Your task to perform on an android device: Go to Android settings Image 0: 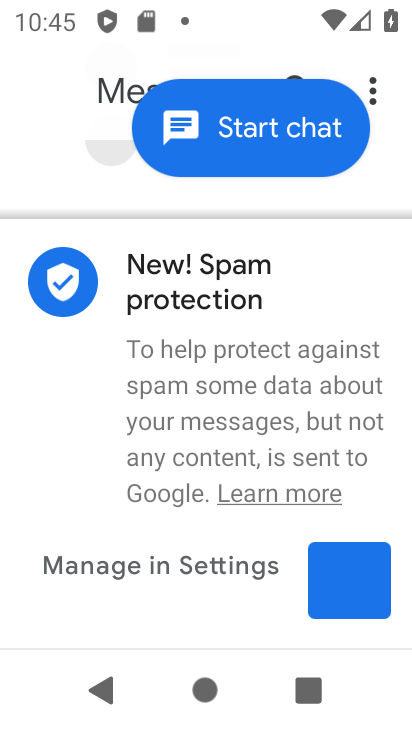
Step 0: press home button
Your task to perform on an android device: Go to Android settings Image 1: 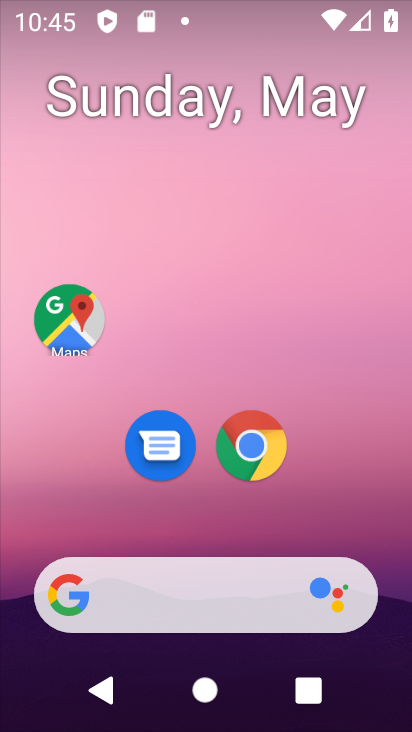
Step 1: drag from (221, 419) to (228, 106)
Your task to perform on an android device: Go to Android settings Image 2: 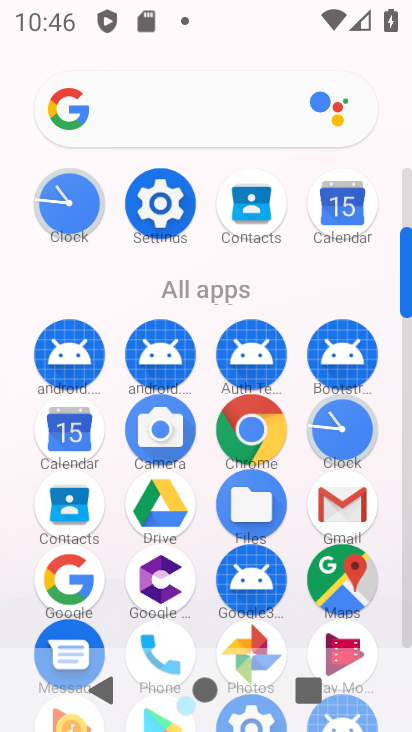
Step 2: click (156, 203)
Your task to perform on an android device: Go to Android settings Image 3: 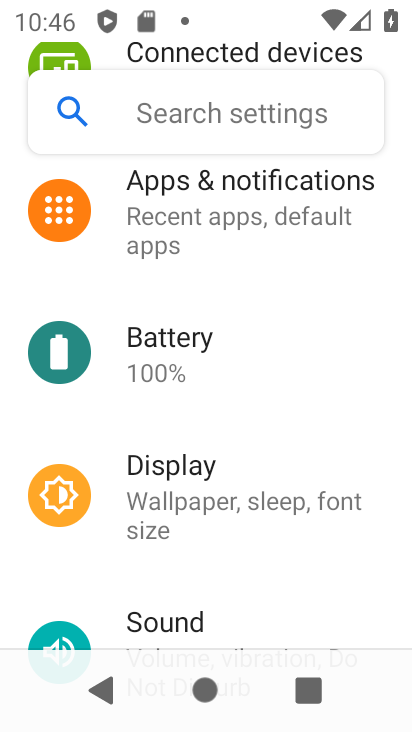
Step 3: drag from (229, 432) to (297, 103)
Your task to perform on an android device: Go to Android settings Image 4: 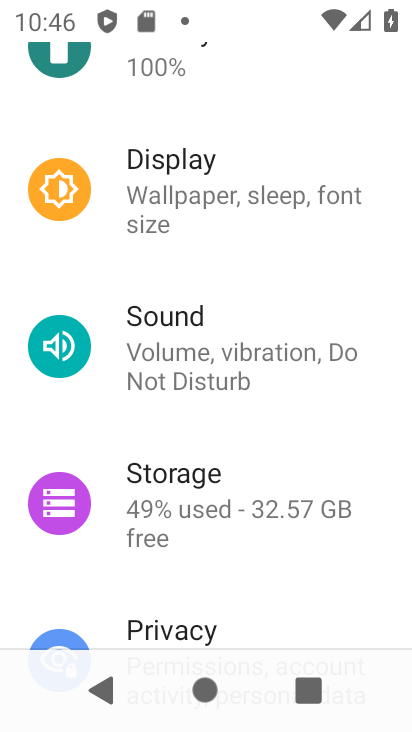
Step 4: drag from (184, 565) to (308, 146)
Your task to perform on an android device: Go to Android settings Image 5: 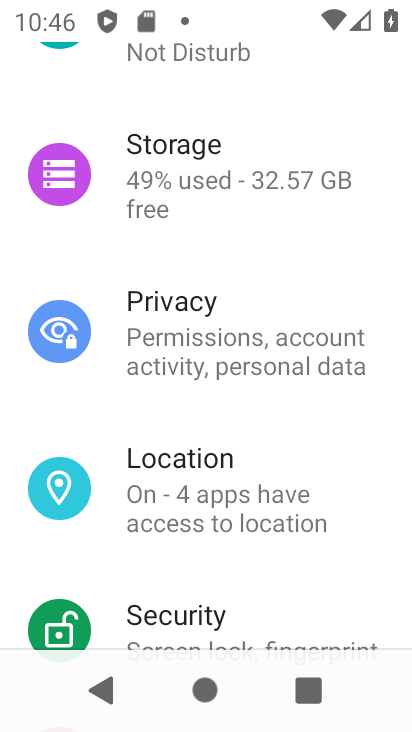
Step 5: drag from (205, 585) to (313, 99)
Your task to perform on an android device: Go to Android settings Image 6: 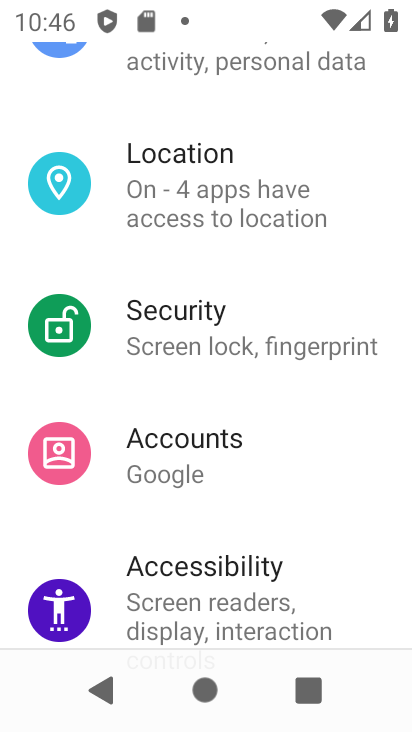
Step 6: drag from (200, 559) to (325, 72)
Your task to perform on an android device: Go to Android settings Image 7: 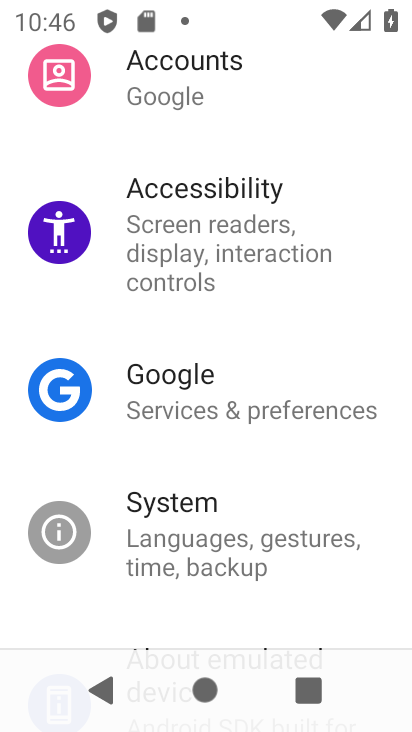
Step 7: drag from (206, 614) to (297, 257)
Your task to perform on an android device: Go to Android settings Image 8: 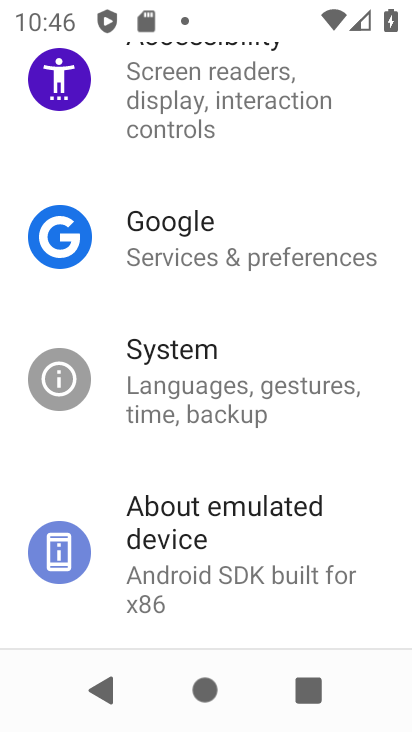
Step 8: click (188, 554)
Your task to perform on an android device: Go to Android settings Image 9: 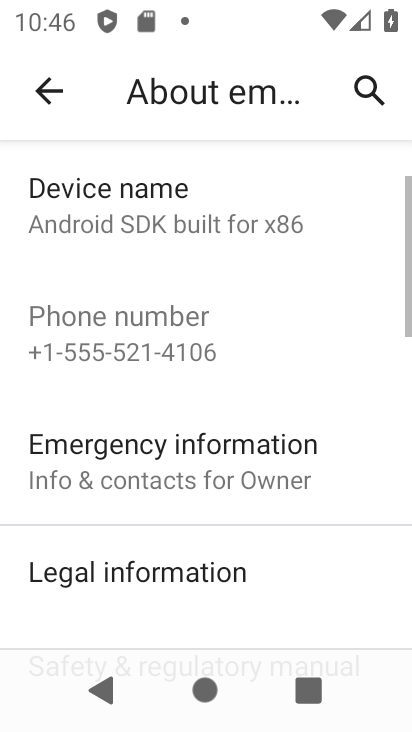
Step 9: task complete